Your task to perform on an android device: set an alarm Image 0: 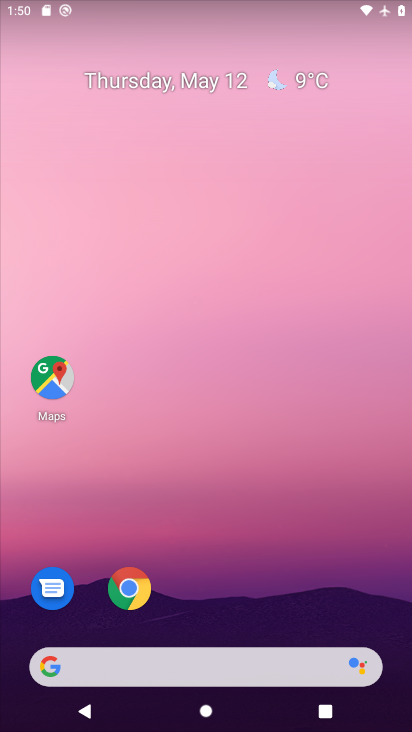
Step 0: drag from (265, 521) to (165, 2)
Your task to perform on an android device: set an alarm Image 1: 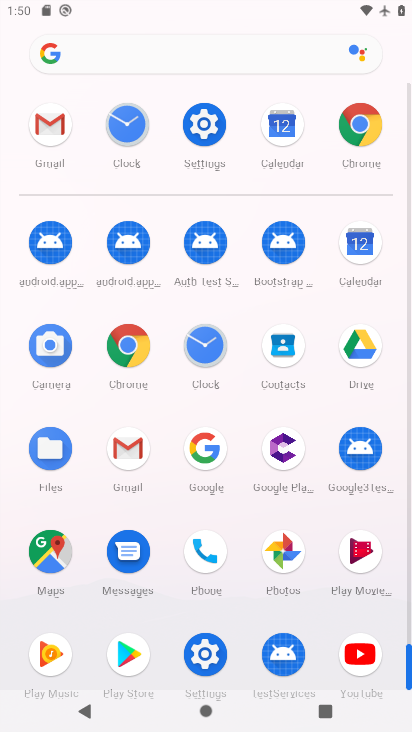
Step 1: click (196, 351)
Your task to perform on an android device: set an alarm Image 2: 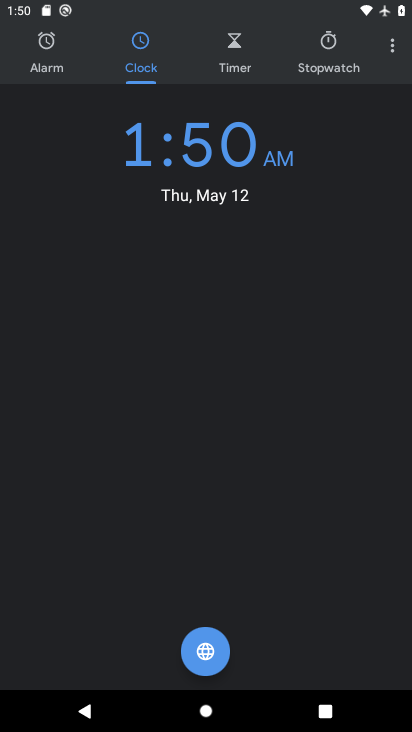
Step 2: click (46, 62)
Your task to perform on an android device: set an alarm Image 3: 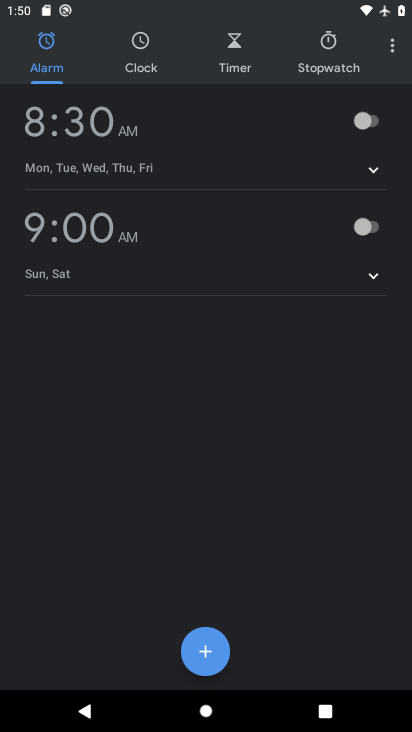
Step 3: click (363, 129)
Your task to perform on an android device: set an alarm Image 4: 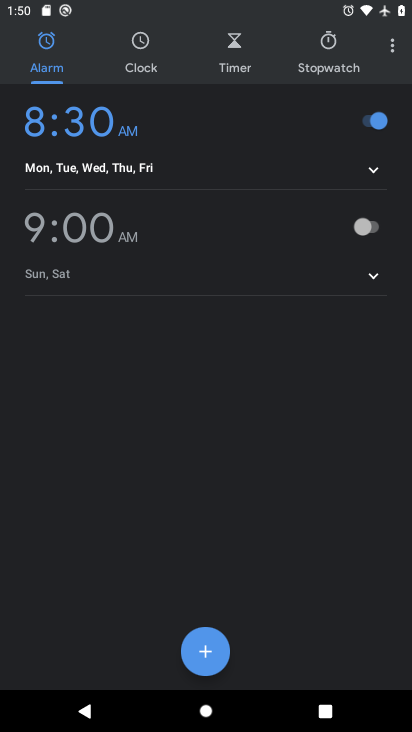
Step 4: task complete